Your task to perform on an android device: Open location settings Image 0: 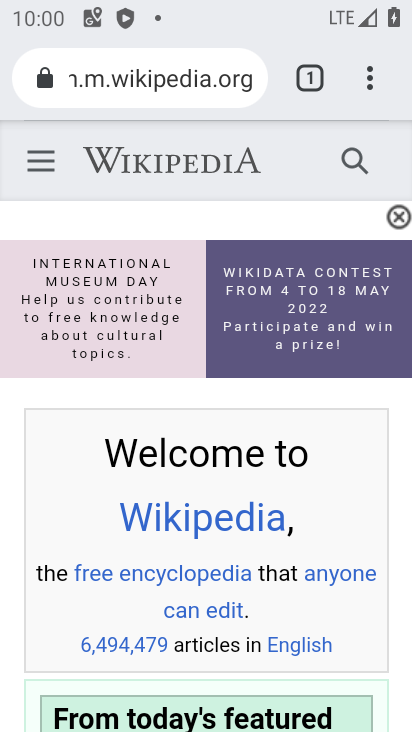
Step 0: press home button
Your task to perform on an android device: Open location settings Image 1: 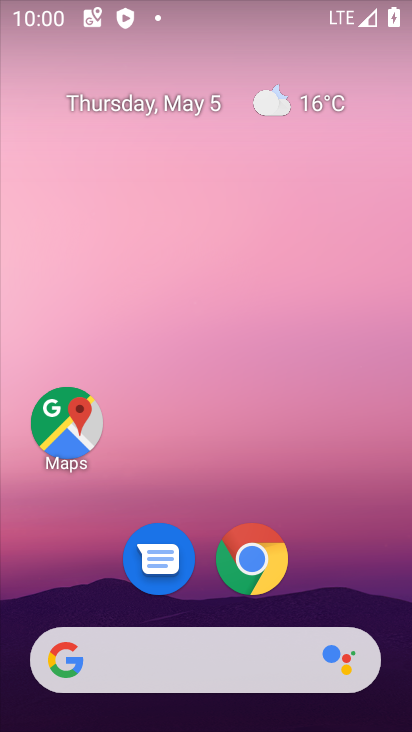
Step 1: drag from (208, 613) to (195, 93)
Your task to perform on an android device: Open location settings Image 2: 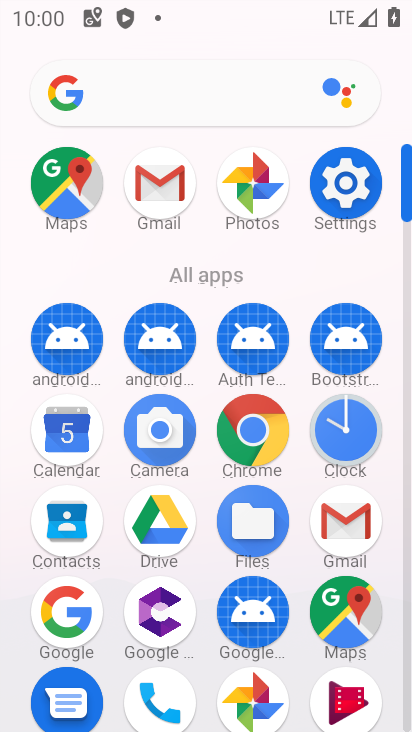
Step 2: click (347, 207)
Your task to perform on an android device: Open location settings Image 3: 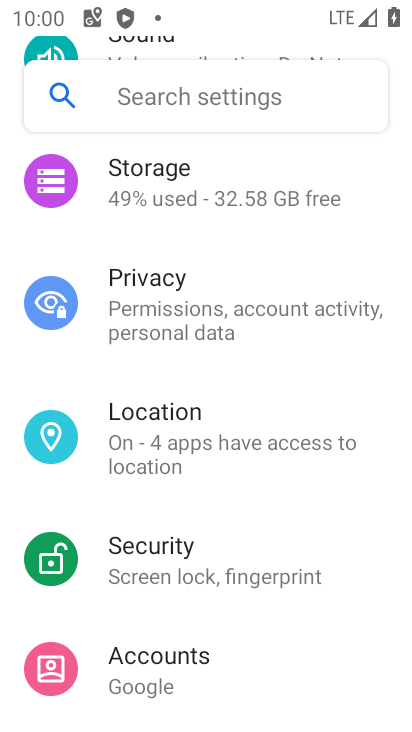
Step 3: click (163, 429)
Your task to perform on an android device: Open location settings Image 4: 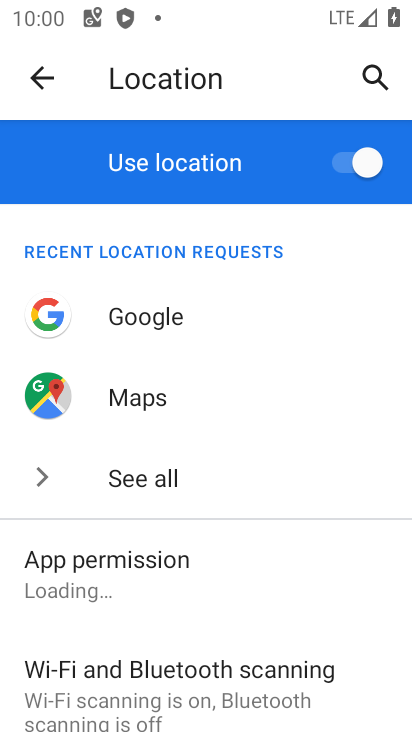
Step 4: task complete